Your task to perform on an android device: check out phone information Image 0: 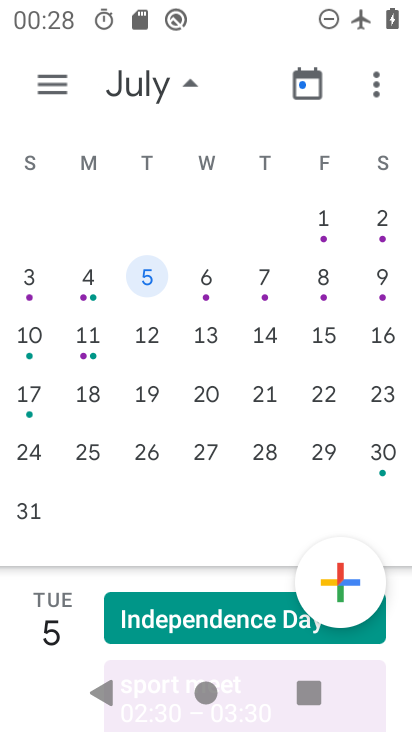
Step 0: press home button
Your task to perform on an android device: check out phone information Image 1: 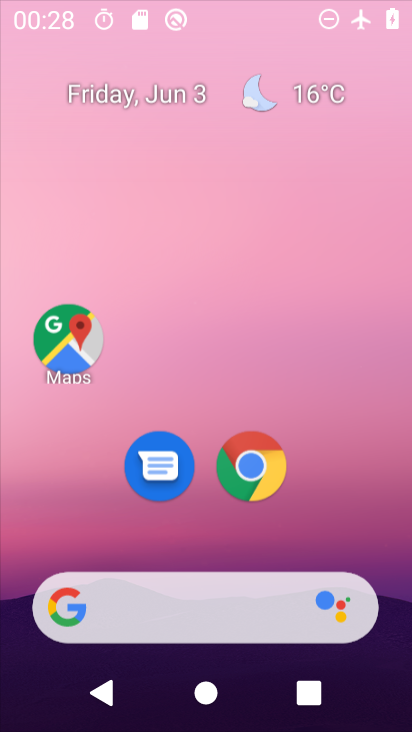
Step 1: press home button
Your task to perform on an android device: check out phone information Image 2: 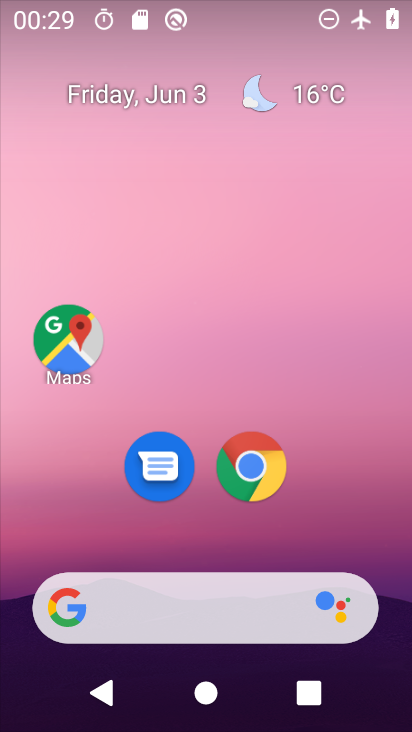
Step 2: drag from (188, 551) to (211, 174)
Your task to perform on an android device: check out phone information Image 3: 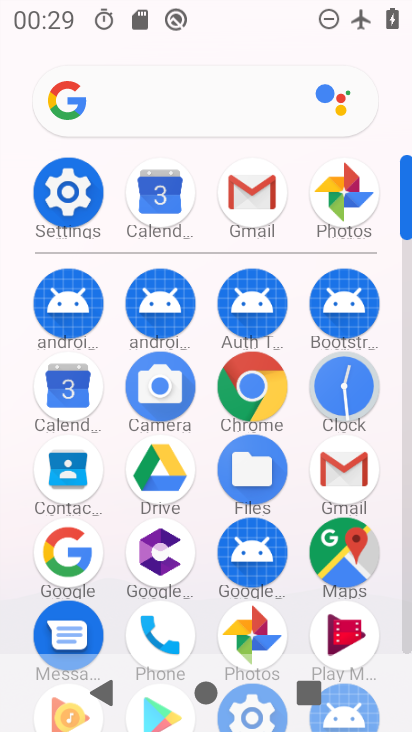
Step 3: click (60, 206)
Your task to perform on an android device: check out phone information Image 4: 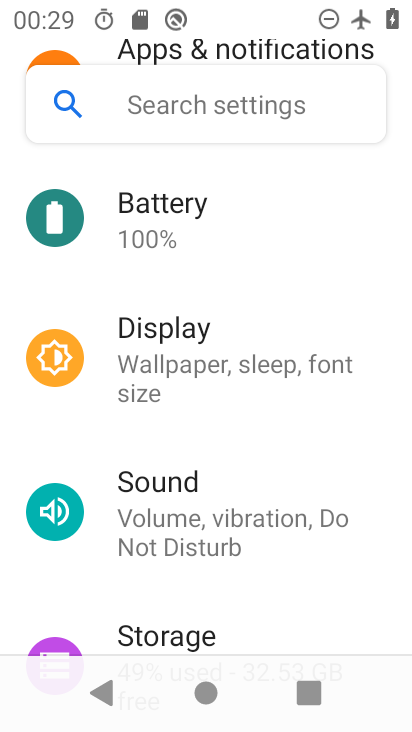
Step 4: drag from (224, 251) to (263, 361)
Your task to perform on an android device: check out phone information Image 5: 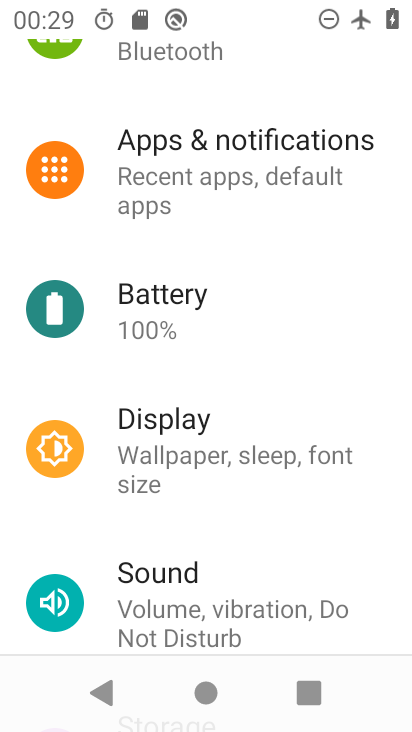
Step 5: drag from (244, 594) to (262, 257)
Your task to perform on an android device: check out phone information Image 6: 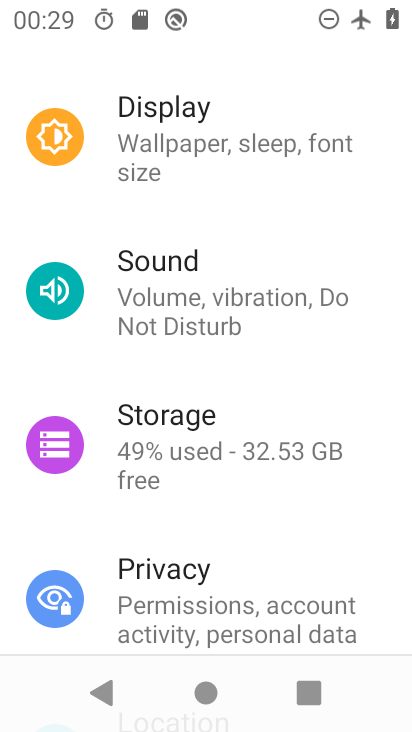
Step 6: drag from (207, 561) to (234, 195)
Your task to perform on an android device: check out phone information Image 7: 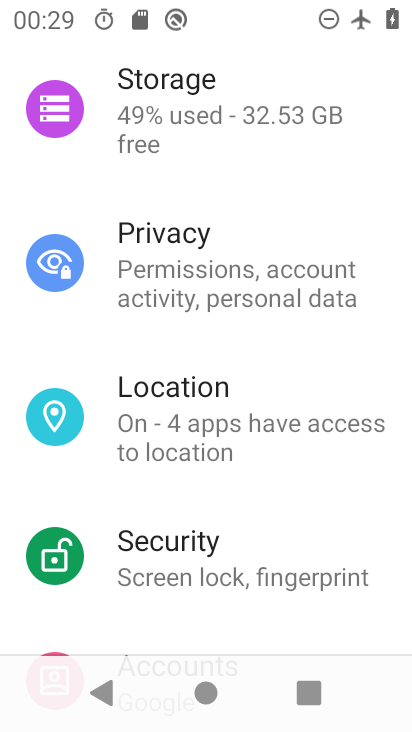
Step 7: drag from (185, 583) to (205, 218)
Your task to perform on an android device: check out phone information Image 8: 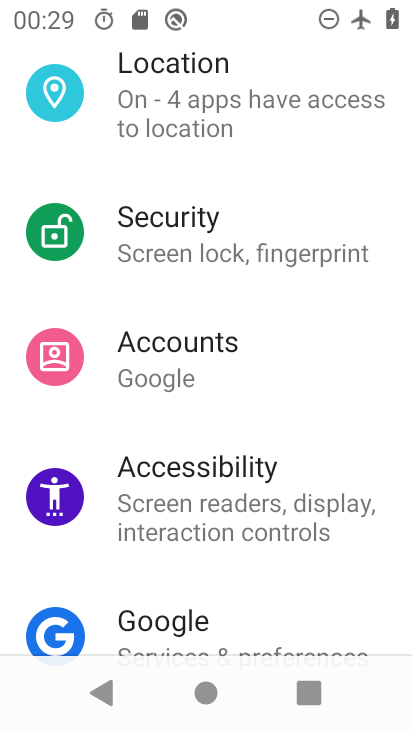
Step 8: drag from (211, 577) to (248, 257)
Your task to perform on an android device: check out phone information Image 9: 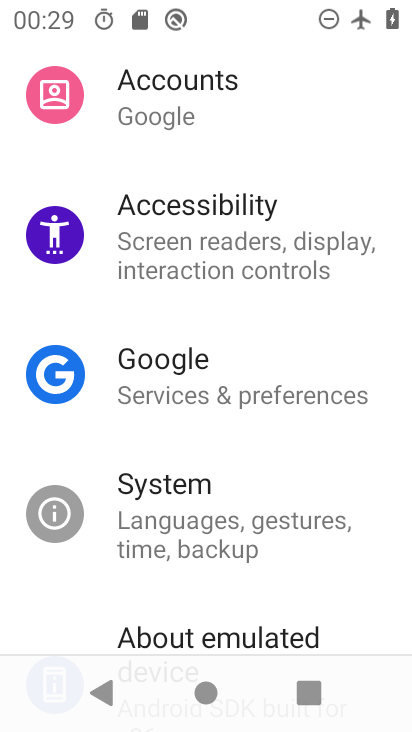
Step 9: drag from (197, 653) to (217, 391)
Your task to perform on an android device: check out phone information Image 10: 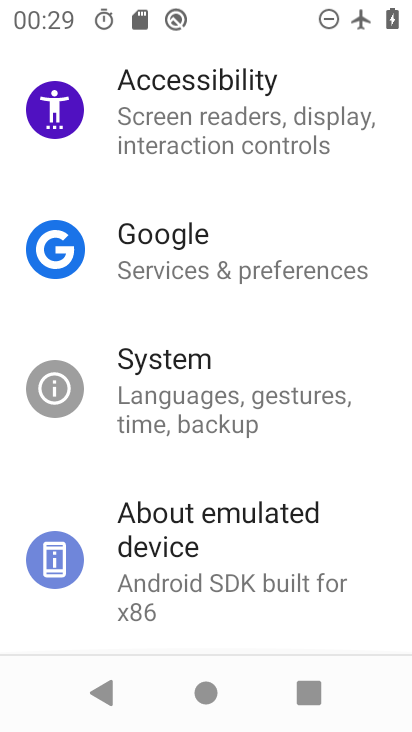
Step 10: click (210, 526)
Your task to perform on an android device: check out phone information Image 11: 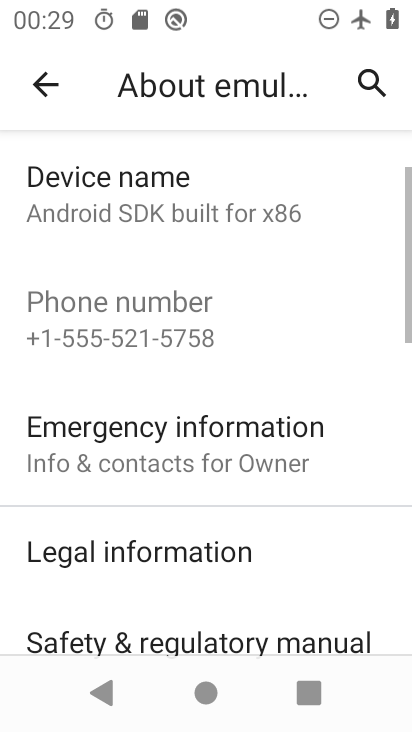
Step 11: task complete